Your task to perform on an android device: turn off location Image 0: 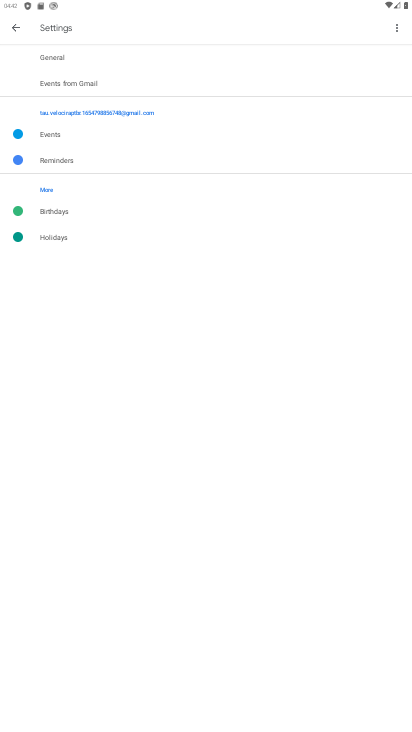
Step 0: press home button
Your task to perform on an android device: turn off location Image 1: 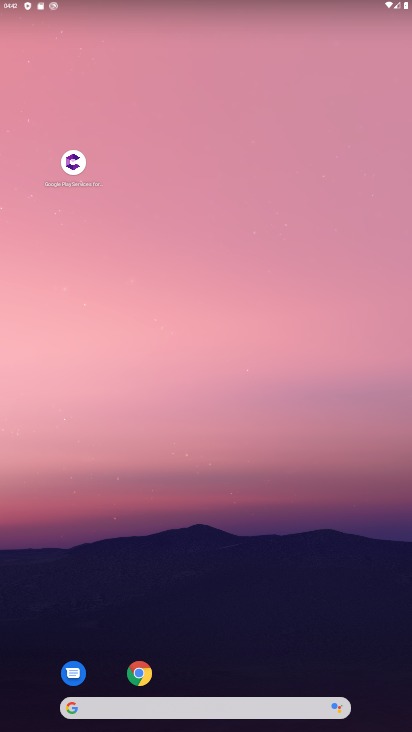
Step 1: drag from (232, 630) to (302, 144)
Your task to perform on an android device: turn off location Image 2: 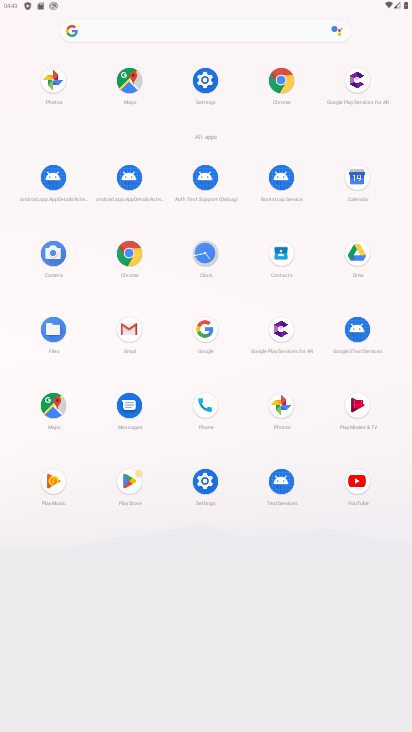
Step 2: click (207, 480)
Your task to perform on an android device: turn off location Image 3: 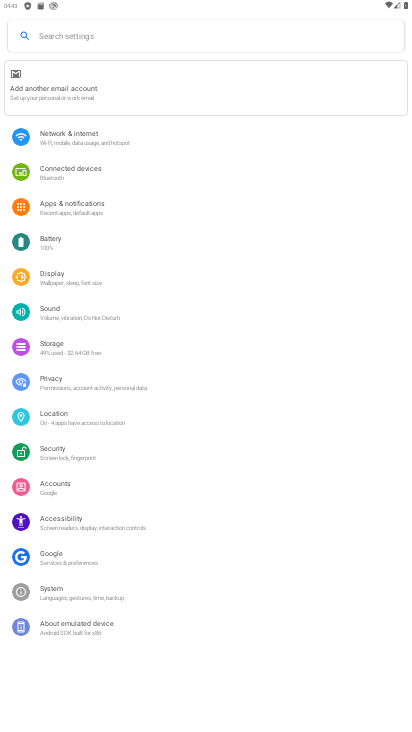
Step 3: click (76, 421)
Your task to perform on an android device: turn off location Image 4: 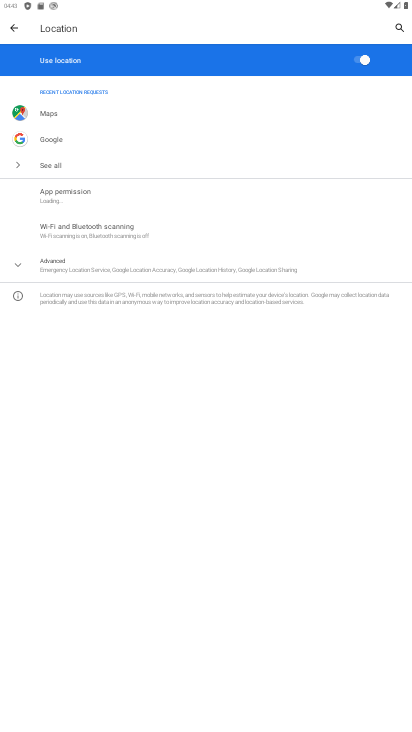
Step 4: click (329, 65)
Your task to perform on an android device: turn off location Image 5: 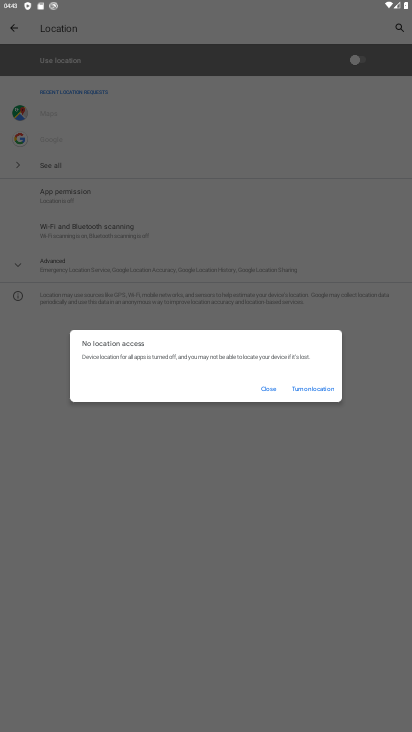
Step 5: task complete